Your task to perform on an android device: turn off wifi Image 0: 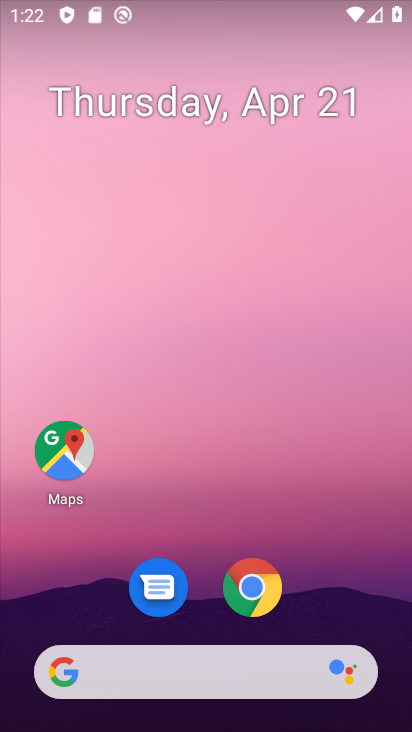
Step 0: drag from (392, 648) to (270, 223)
Your task to perform on an android device: turn off wifi Image 1: 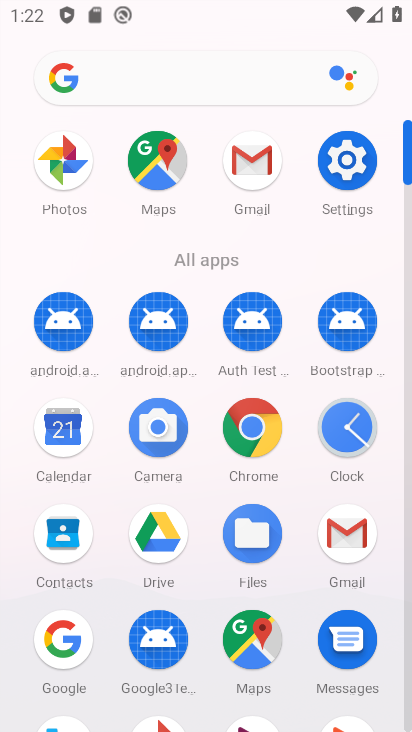
Step 1: click (407, 677)
Your task to perform on an android device: turn off wifi Image 2: 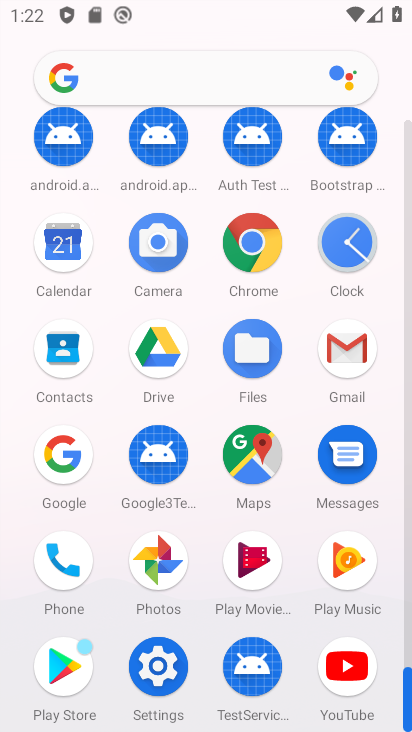
Step 2: click (158, 664)
Your task to perform on an android device: turn off wifi Image 3: 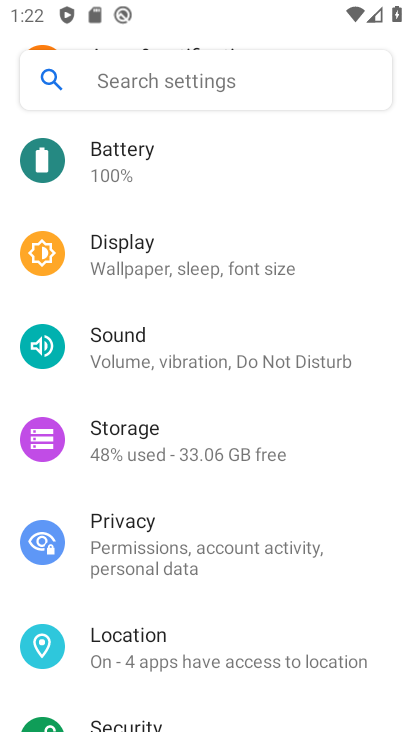
Step 3: drag from (366, 277) to (362, 444)
Your task to perform on an android device: turn off wifi Image 4: 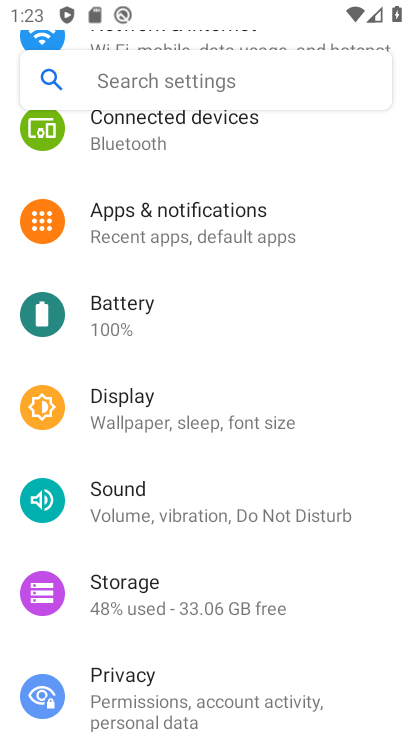
Step 4: drag from (371, 192) to (378, 379)
Your task to perform on an android device: turn off wifi Image 5: 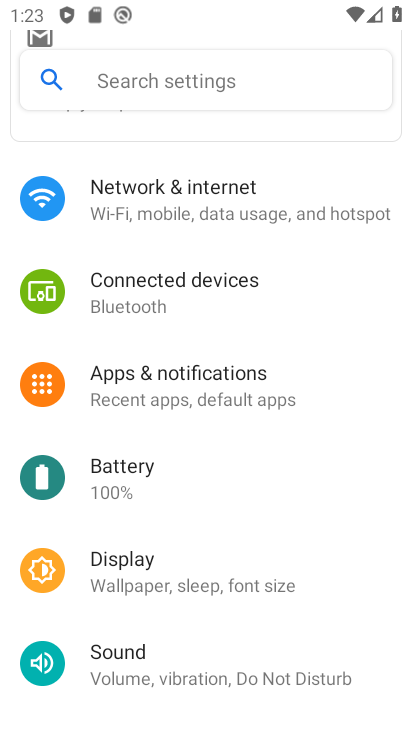
Step 5: click (118, 214)
Your task to perform on an android device: turn off wifi Image 6: 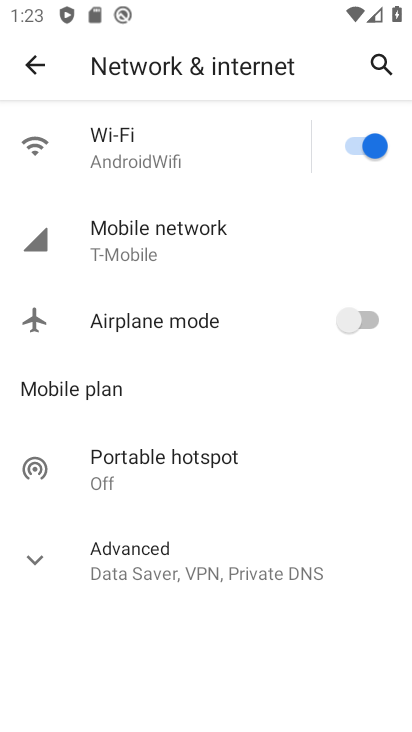
Step 6: click (348, 142)
Your task to perform on an android device: turn off wifi Image 7: 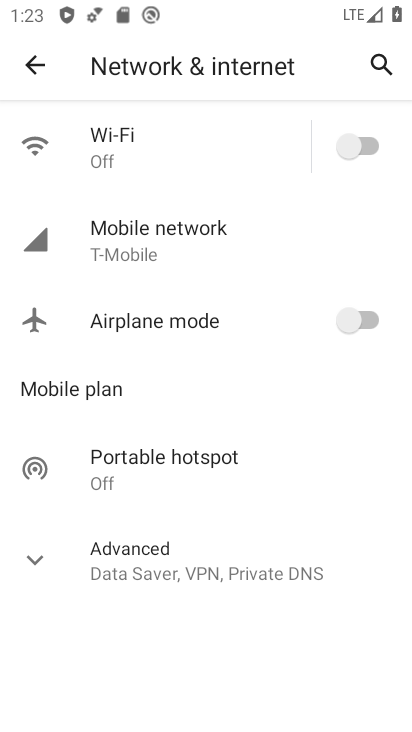
Step 7: task complete